Your task to perform on an android device: Turn off the flashlight Image 0: 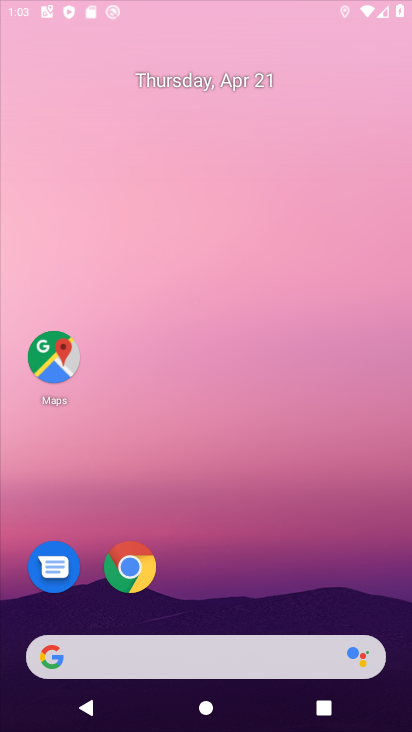
Step 0: drag from (246, 564) to (300, 96)
Your task to perform on an android device: Turn off the flashlight Image 1: 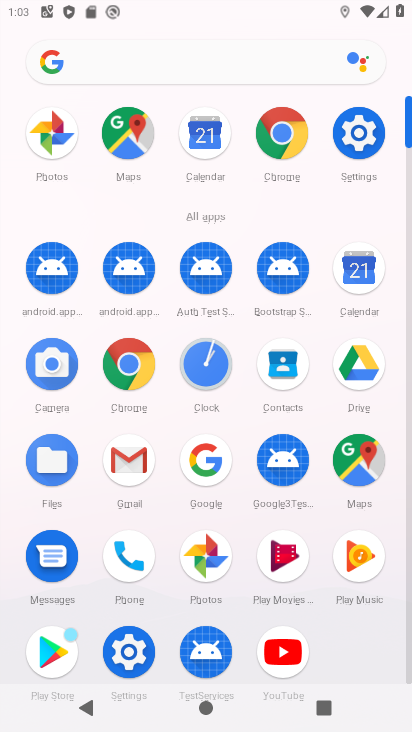
Step 1: click (362, 130)
Your task to perform on an android device: Turn off the flashlight Image 2: 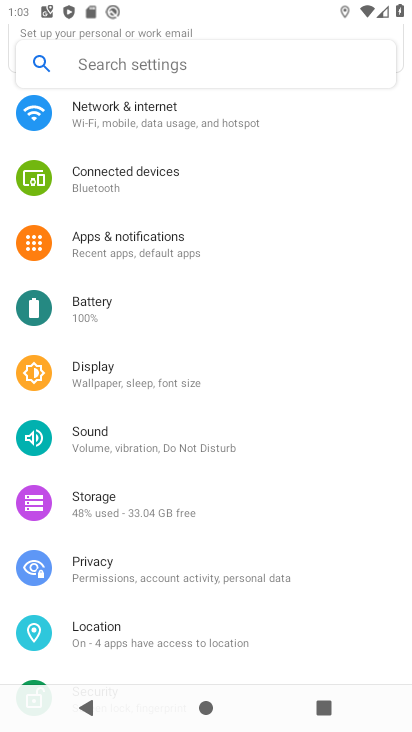
Step 2: click (103, 60)
Your task to perform on an android device: Turn off the flashlight Image 3: 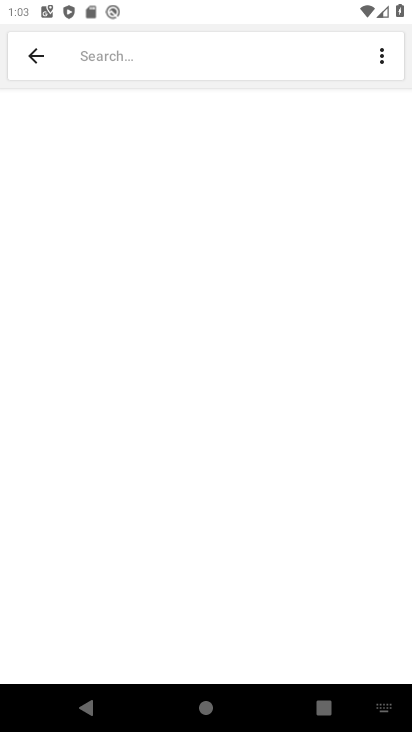
Step 3: type "flashlight"
Your task to perform on an android device: Turn off the flashlight Image 4: 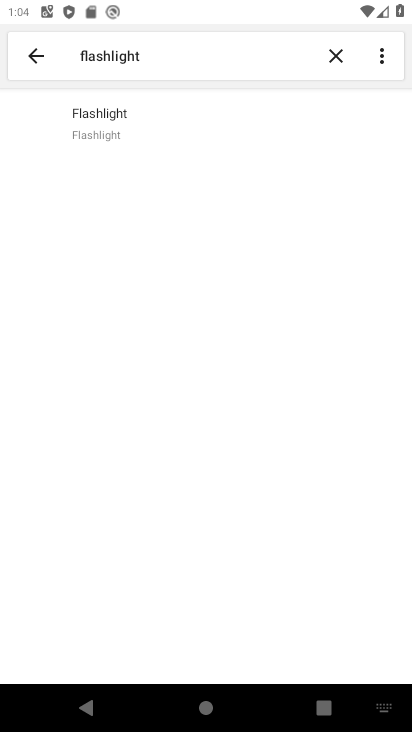
Step 4: click (114, 130)
Your task to perform on an android device: Turn off the flashlight Image 5: 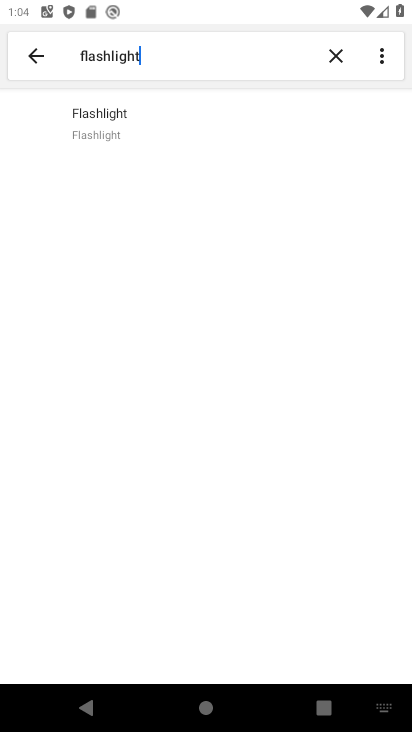
Step 5: click (99, 130)
Your task to perform on an android device: Turn off the flashlight Image 6: 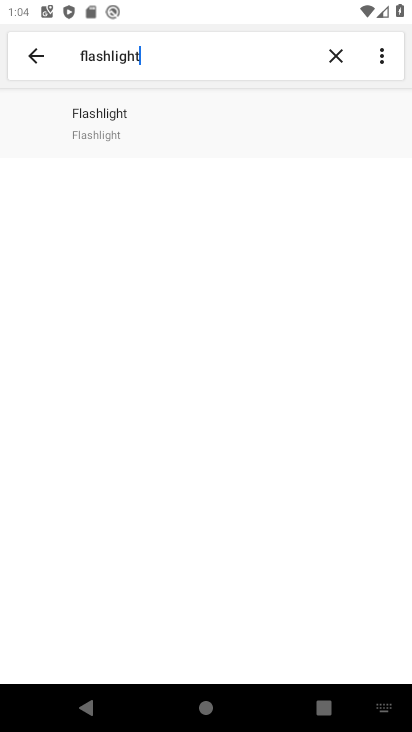
Step 6: task complete